Your task to perform on an android device: install app "Facebook" Image 0: 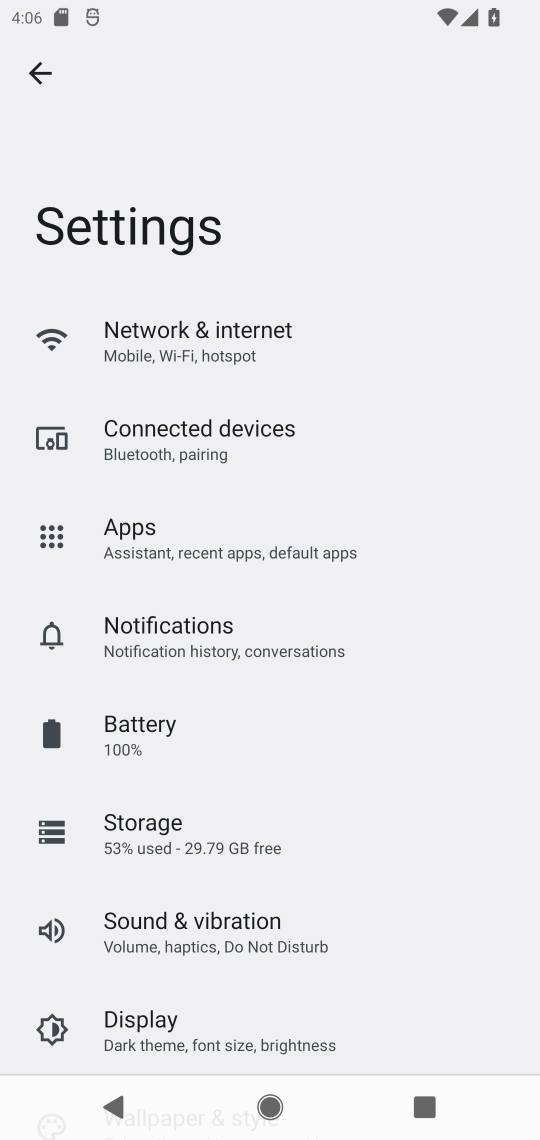
Step 0: press home button
Your task to perform on an android device: install app "Facebook" Image 1: 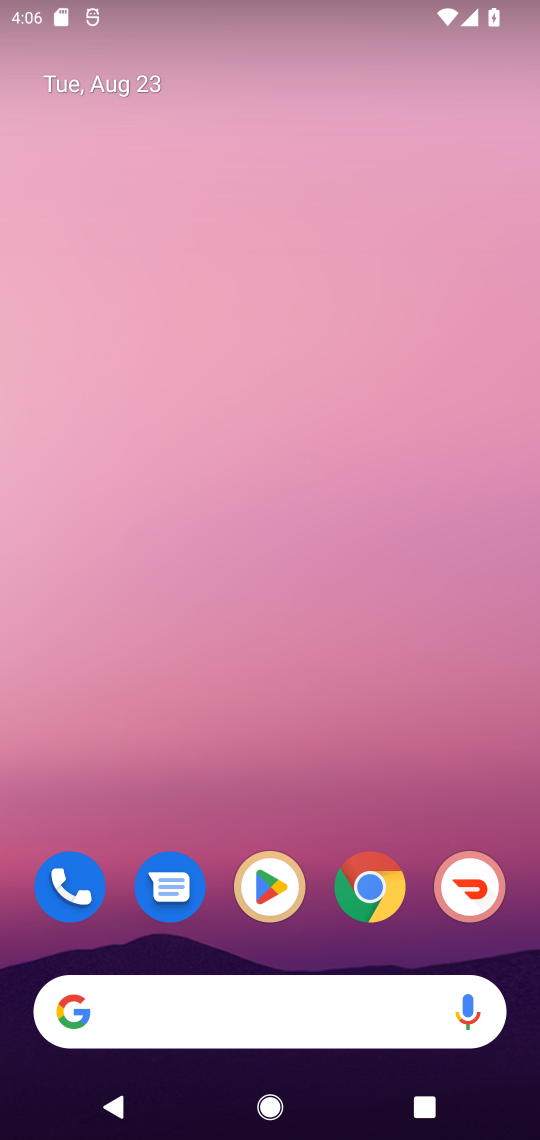
Step 1: click (264, 892)
Your task to perform on an android device: install app "Facebook" Image 2: 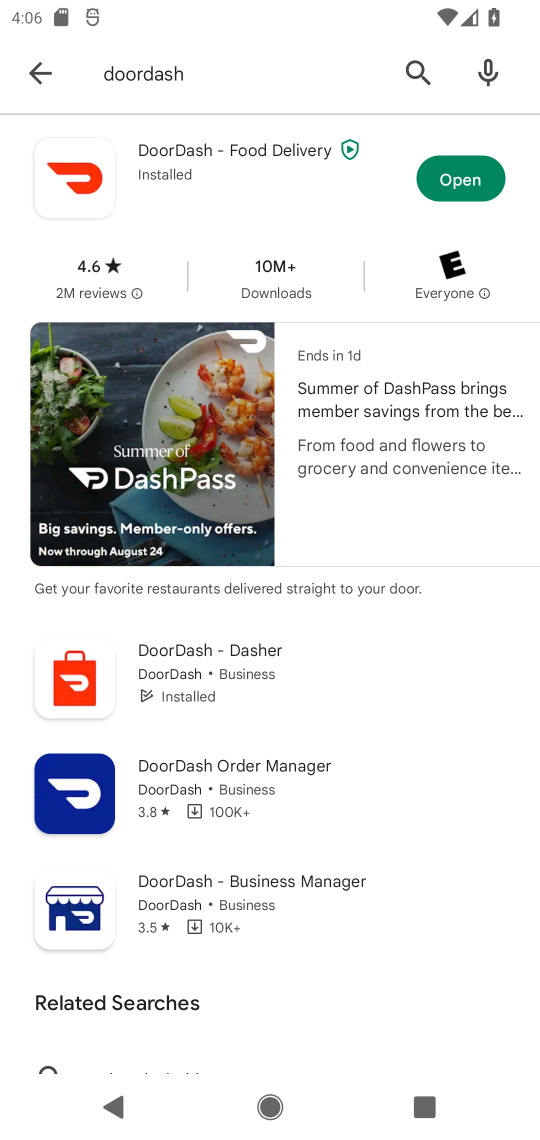
Step 2: click (39, 73)
Your task to perform on an android device: install app "Facebook" Image 3: 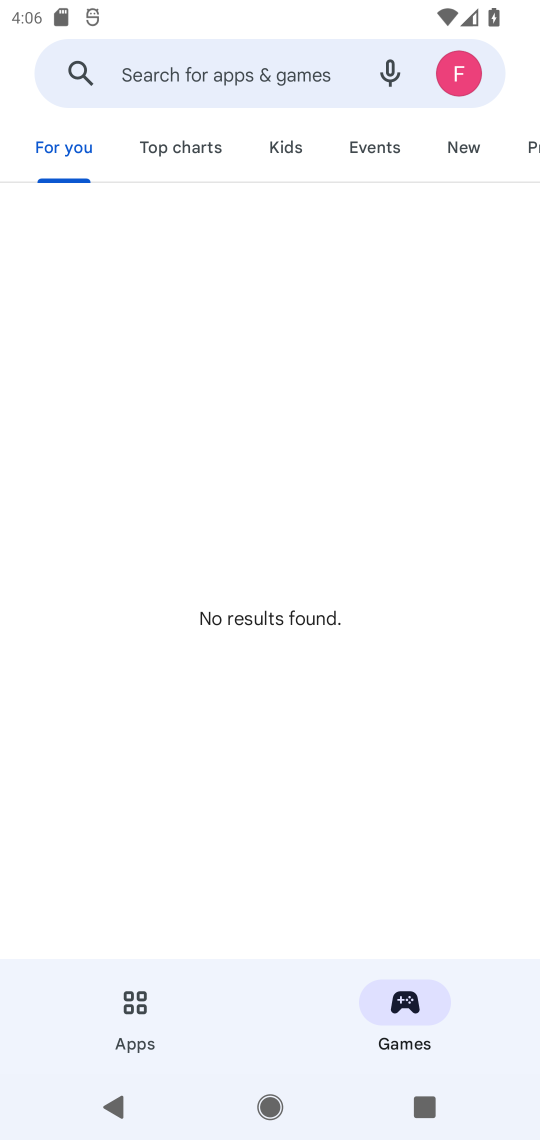
Step 3: click (185, 66)
Your task to perform on an android device: install app "Facebook" Image 4: 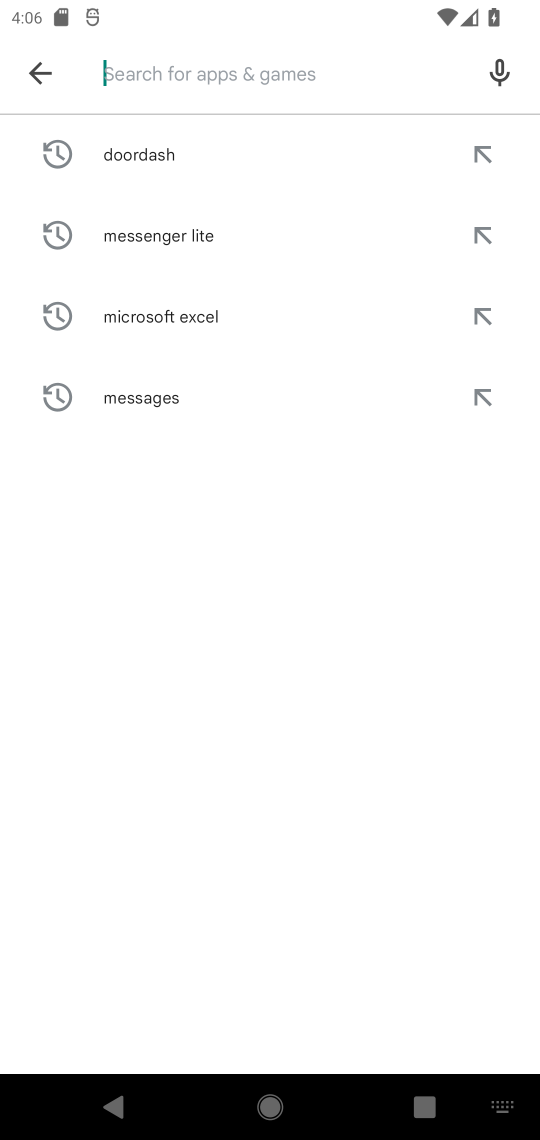
Step 4: type "Facebook"
Your task to perform on an android device: install app "Facebook" Image 5: 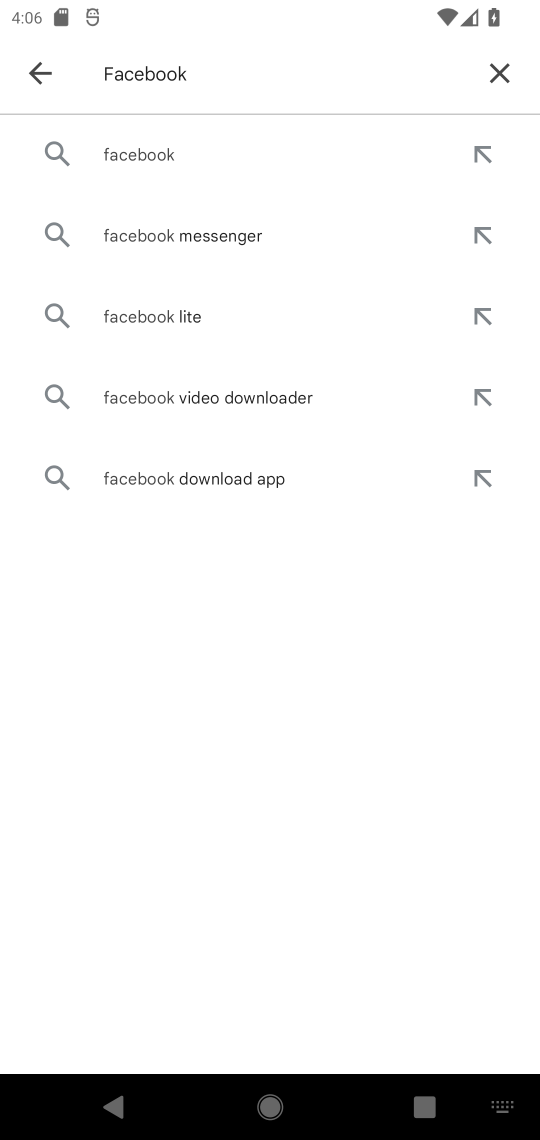
Step 5: click (162, 156)
Your task to perform on an android device: install app "Facebook" Image 6: 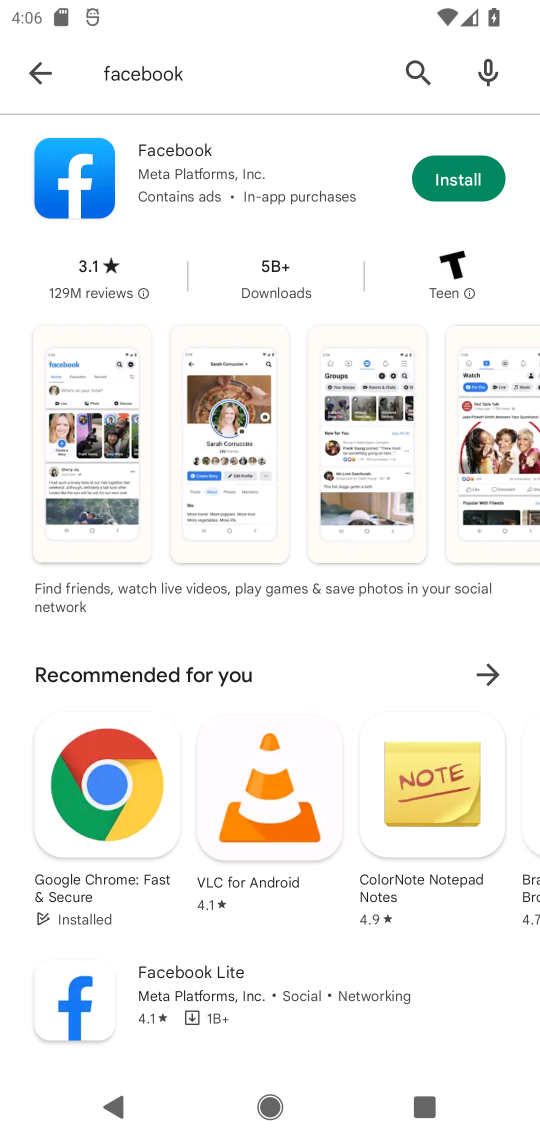
Step 6: click (458, 190)
Your task to perform on an android device: install app "Facebook" Image 7: 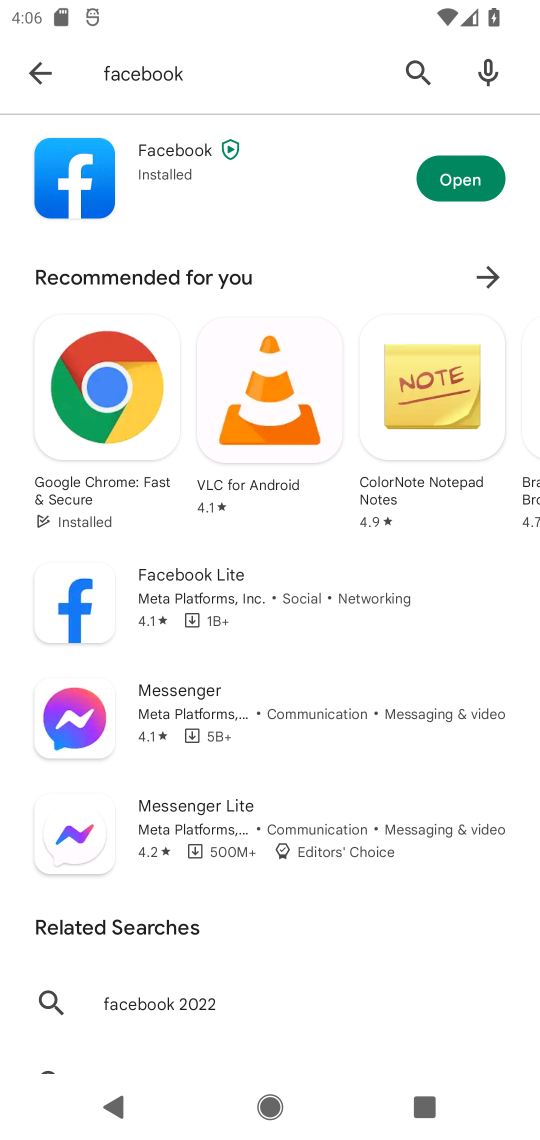
Step 7: click (458, 190)
Your task to perform on an android device: install app "Facebook" Image 8: 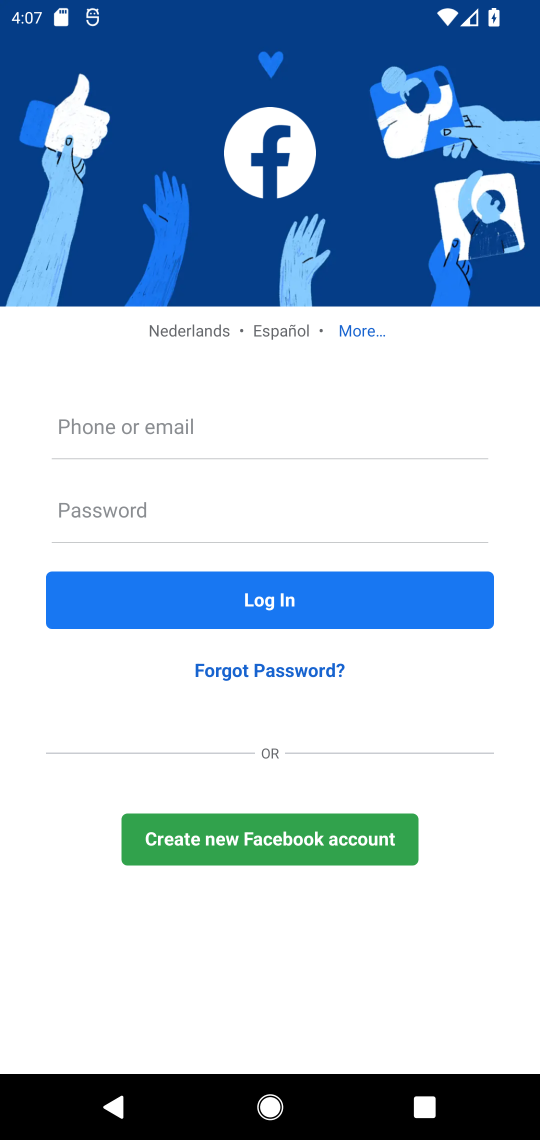
Step 8: task complete